Your task to perform on an android device: Is it going to rain tomorrow? Image 0: 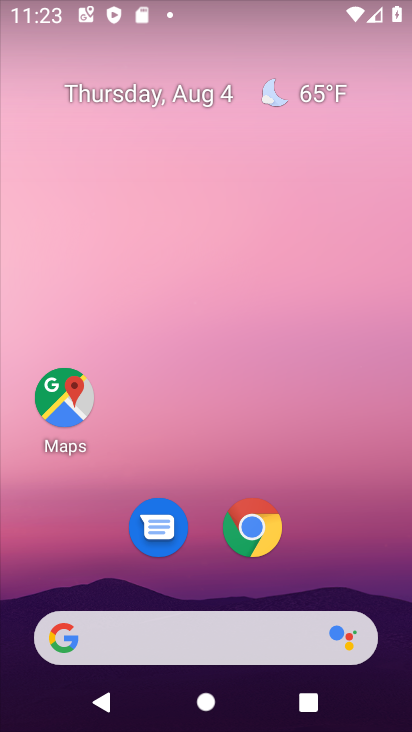
Step 0: click (221, 629)
Your task to perform on an android device: Is it going to rain tomorrow? Image 1: 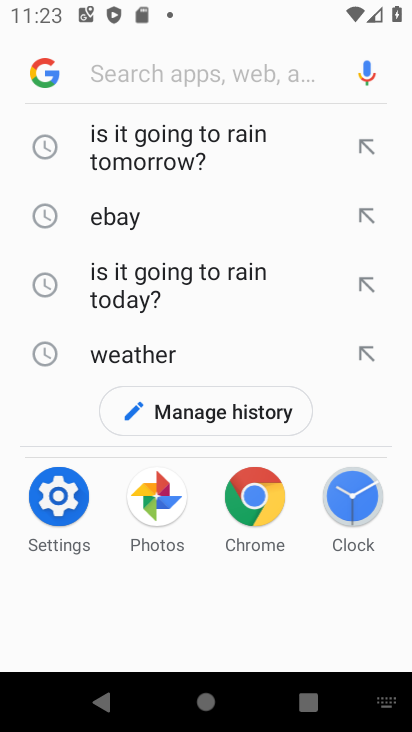
Step 1: type "Is it going to rain tomorrow?"
Your task to perform on an android device: Is it going to rain tomorrow? Image 2: 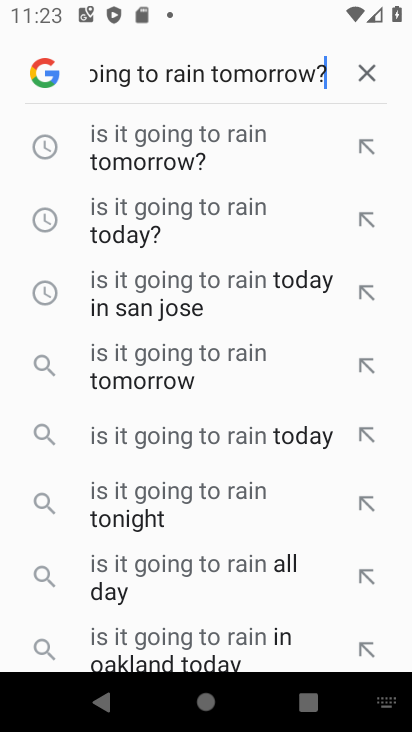
Step 2: type ""
Your task to perform on an android device: Is it going to rain tomorrow? Image 3: 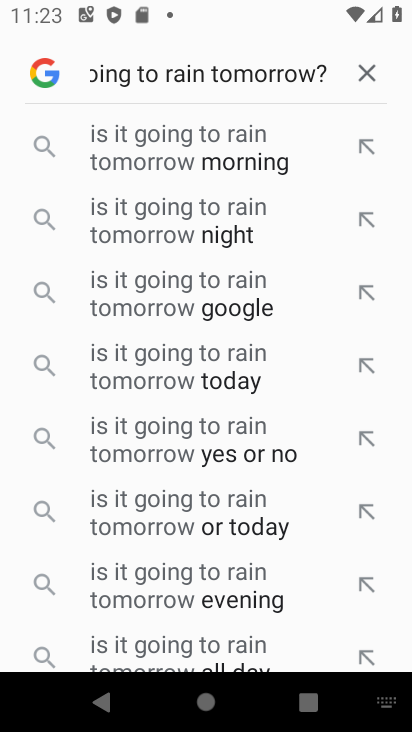
Step 3: press enter
Your task to perform on an android device: Is it going to rain tomorrow? Image 4: 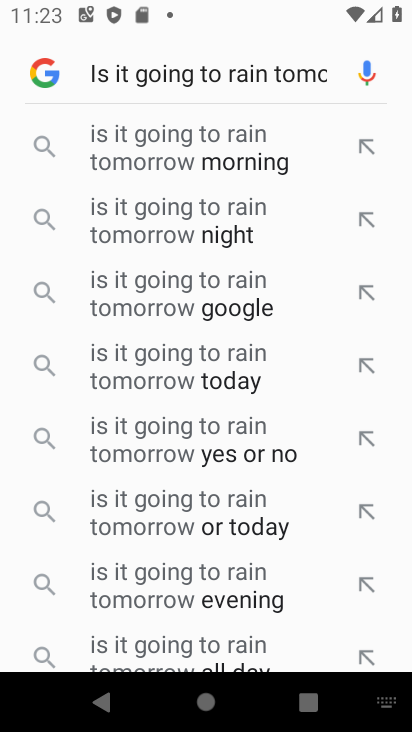
Step 4: press enter
Your task to perform on an android device: Is it going to rain tomorrow? Image 5: 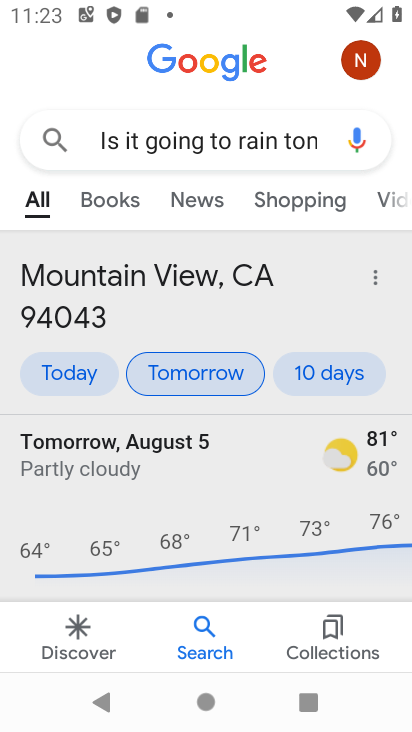
Step 5: task complete